Your task to perform on an android device: turn off wifi Image 0: 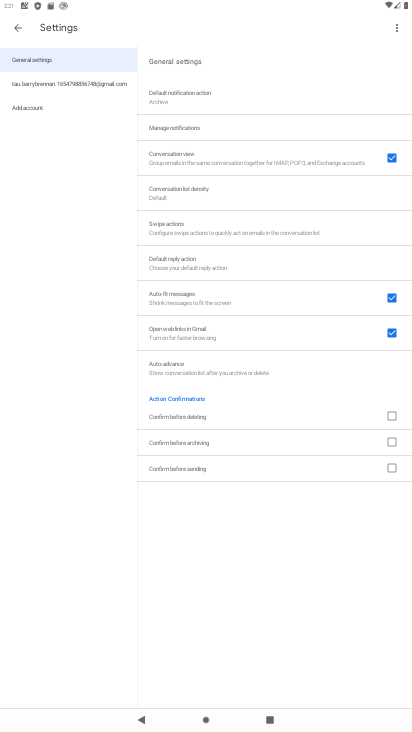
Step 0: drag from (188, 616) to (308, 194)
Your task to perform on an android device: turn off wifi Image 1: 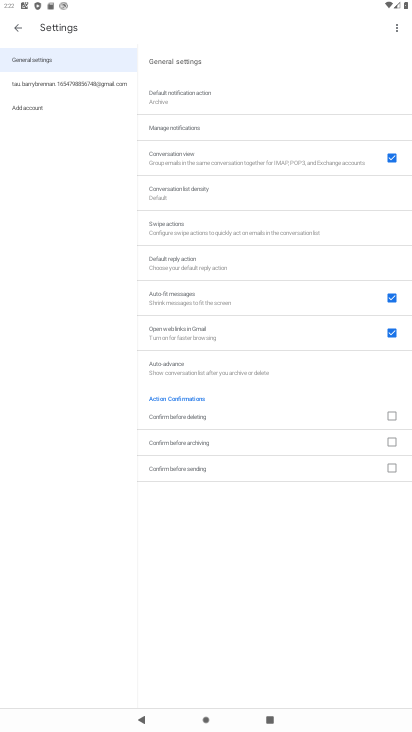
Step 1: click (310, 15)
Your task to perform on an android device: turn off wifi Image 2: 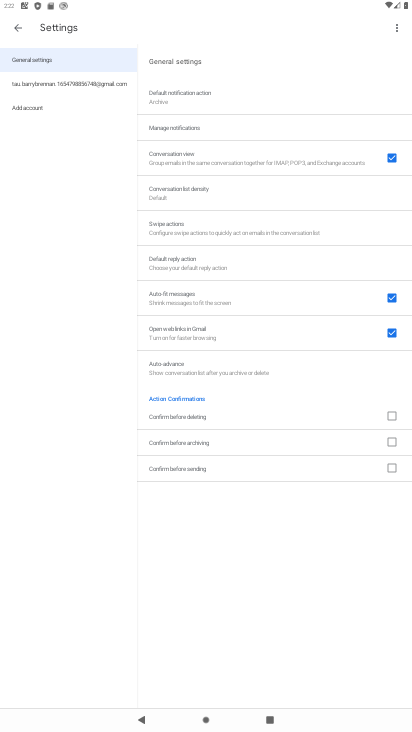
Step 2: drag from (220, 119) to (104, 215)
Your task to perform on an android device: turn off wifi Image 3: 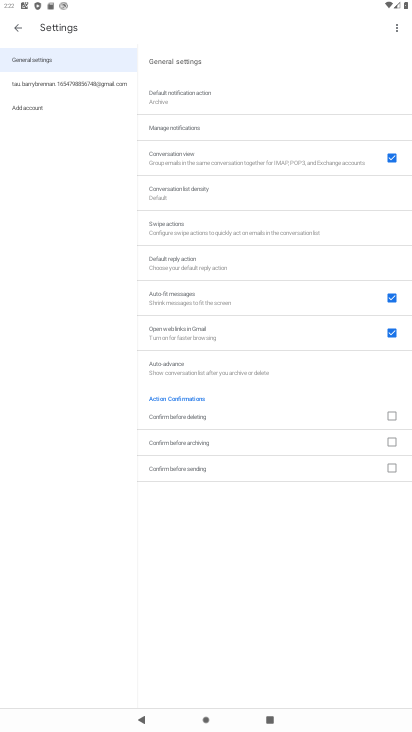
Step 3: drag from (231, 621) to (349, 129)
Your task to perform on an android device: turn off wifi Image 4: 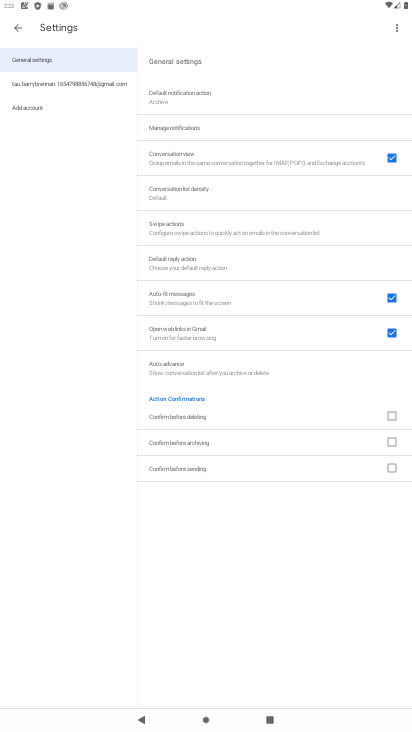
Step 4: click (82, 79)
Your task to perform on an android device: turn off wifi Image 5: 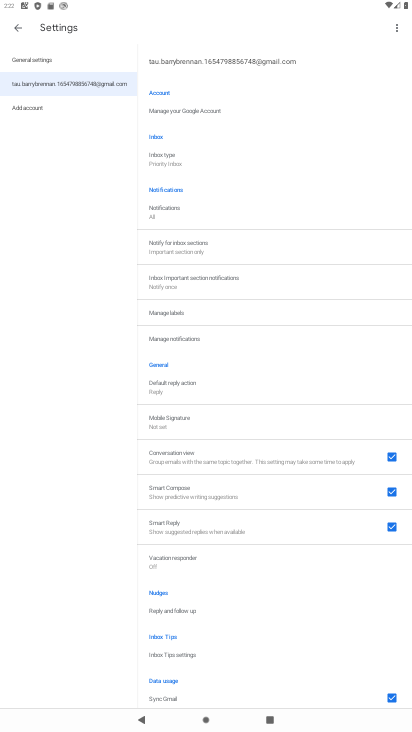
Step 5: press home button
Your task to perform on an android device: turn off wifi Image 6: 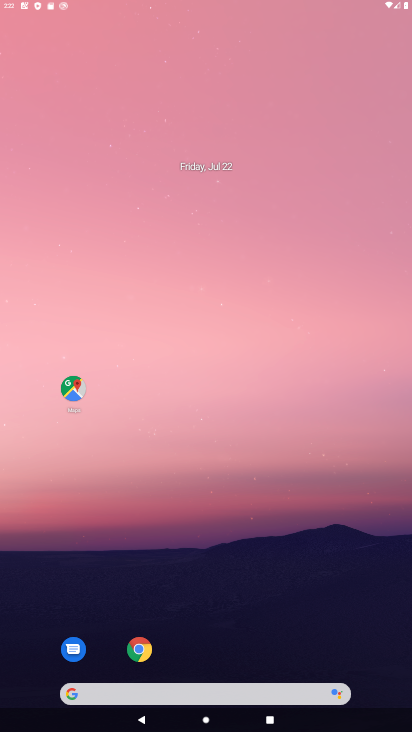
Step 6: drag from (260, 76) to (265, 31)
Your task to perform on an android device: turn off wifi Image 7: 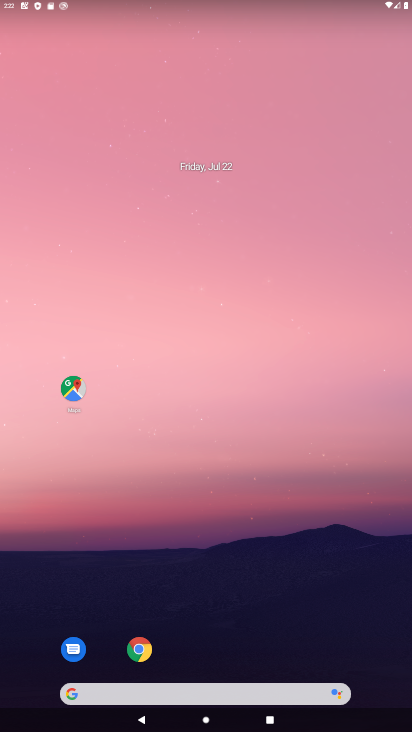
Step 7: drag from (198, 666) to (301, 53)
Your task to perform on an android device: turn off wifi Image 8: 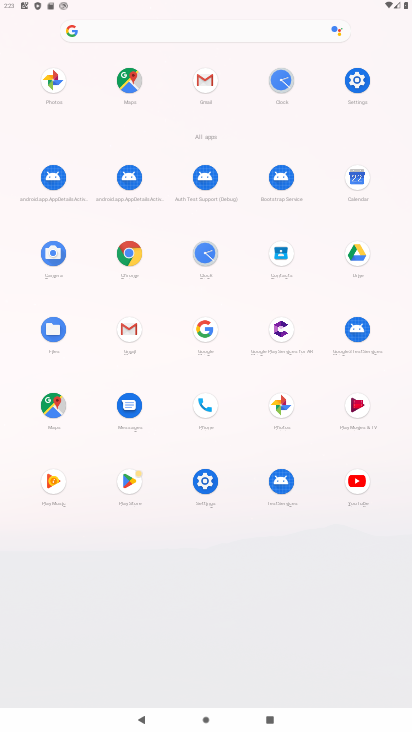
Step 8: click (355, 72)
Your task to perform on an android device: turn off wifi Image 9: 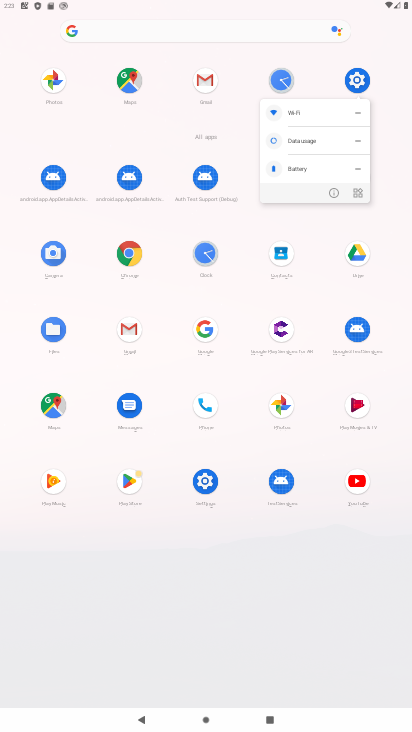
Step 9: click (287, 119)
Your task to perform on an android device: turn off wifi Image 10: 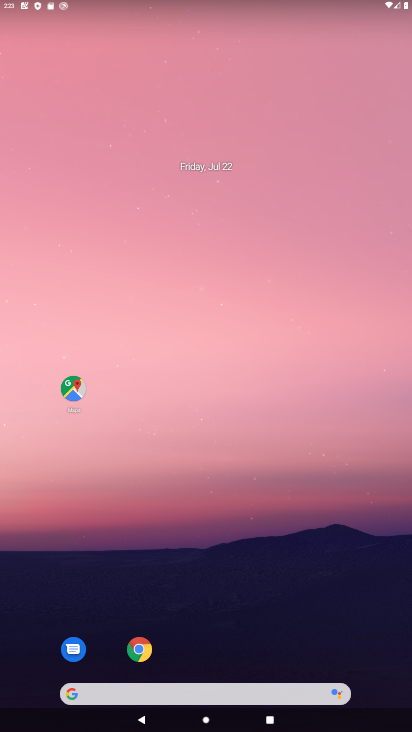
Step 10: drag from (205, 617) to (317, 250)
Your task to perform on an android device: turn off wifi Image 11: 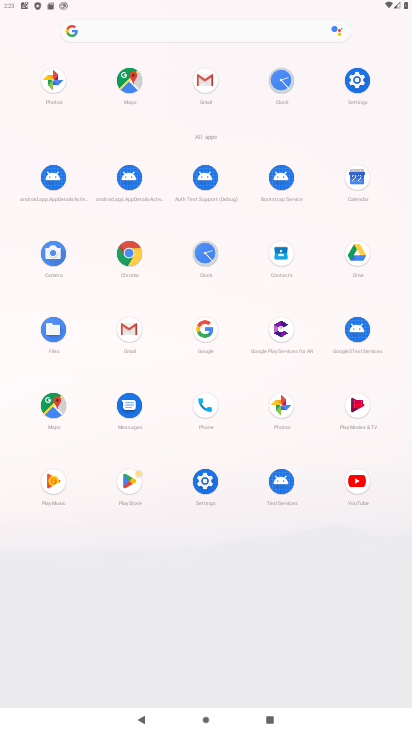
Step 11: click (362, 70)
Your task to perform on an android device: turn off wifi Image 12: 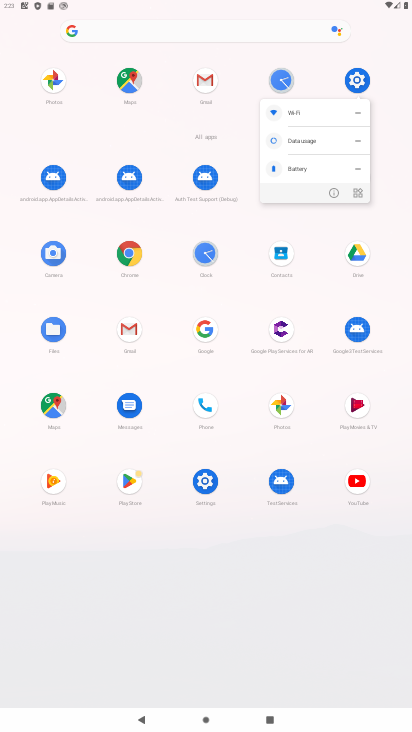
Step 12: click (287, 112)
Your task to perform on an android device: turn off wifi Image 13: 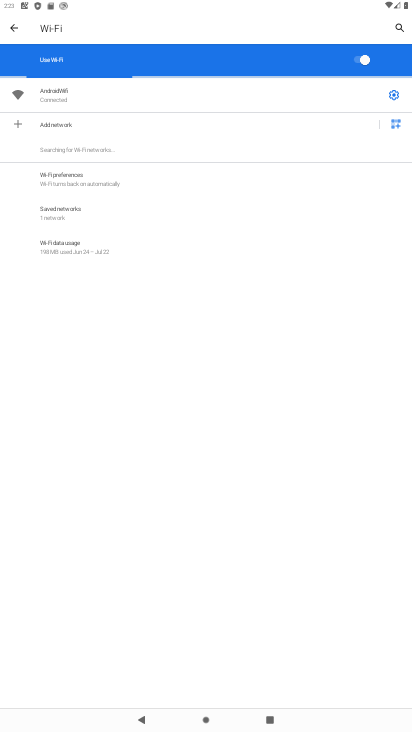
Step 13: click (358, 65)
Your task to perform on an android device: turn off wifi Image 14: 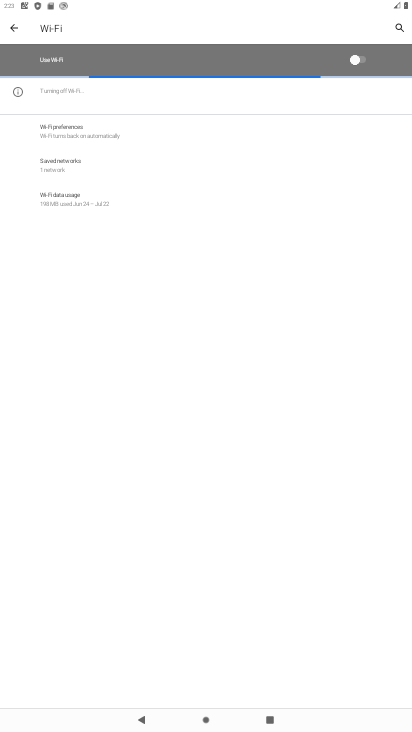
Step 14: task complete